Your task to perform on an android device: toggle pop-ups in chrome Image 0: 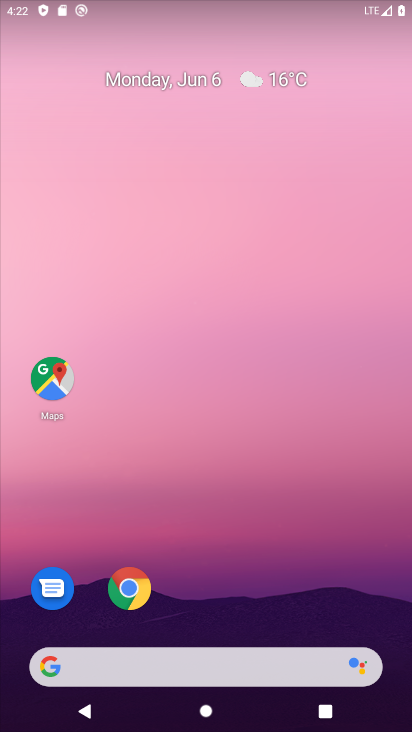
Step 0: drag from (278, 647) to (249, 99)
Your task to perform on an android device: toggle pop-ups in chrome Image 1: 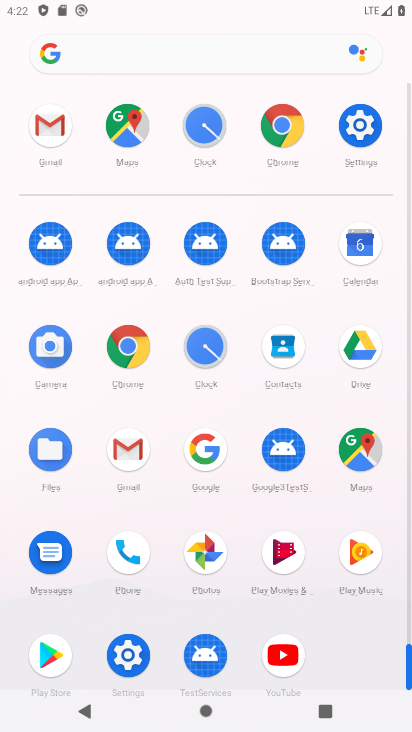
Step 1: click (129, 344)
Your task to perform on an android device: toggle pop-ups in chrome Image 2: 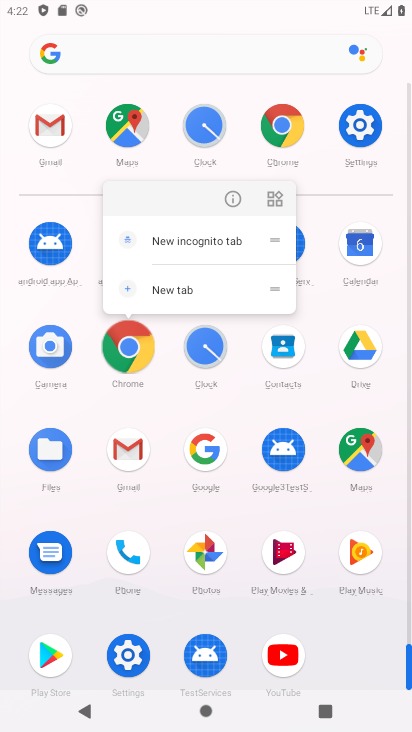
Step 2: click (129, 344)
Your task to perform on an android device: toggle pop-ups in chrome Image 3: 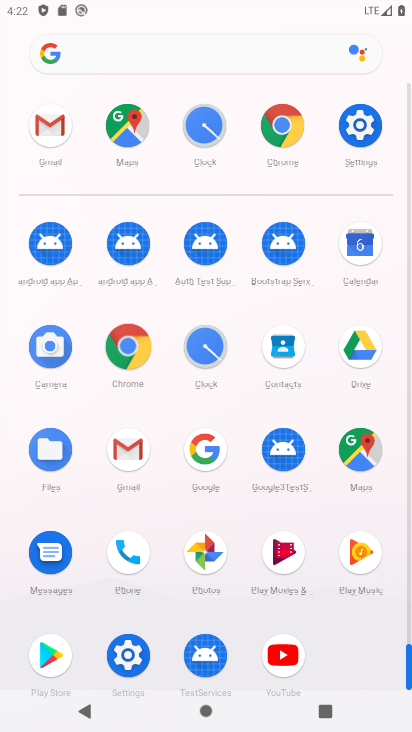
Step 3: click (131, 345)
Your task to perform on an android device: toggle pop-ups in chrome Image 4: 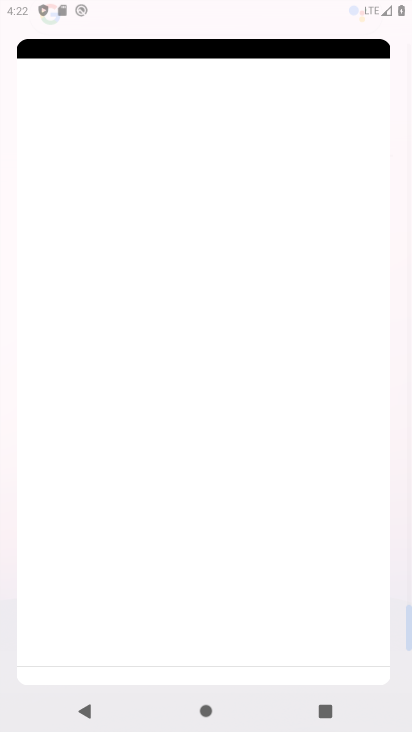
Step 4: click (133, 347)
Your task to perform on an android device: toggle pop-ups in chrome Image 5: 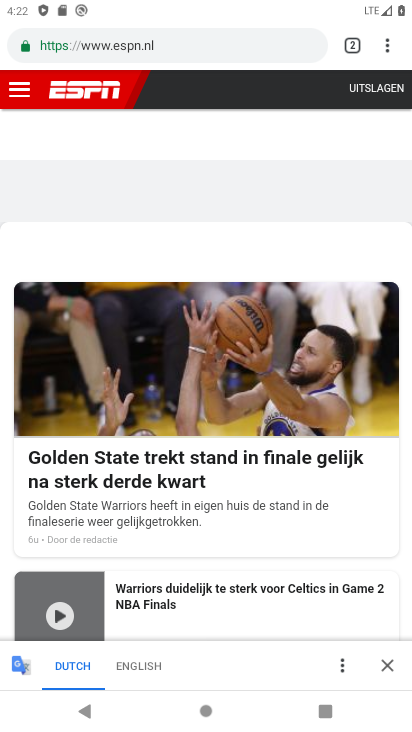
Step 5: click (380, 52)
Your task to perform on an android device: toggle pop-ups in chrome Image 6: 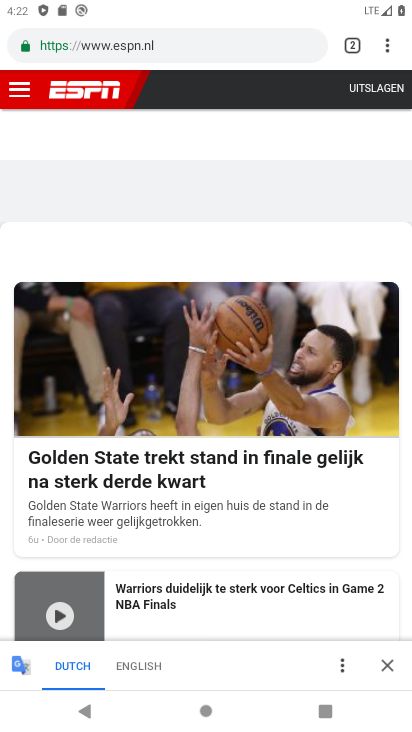
Step 6: drag from (389, 46) to (248, 607)
Your task to perform on an android device: toggle pop-ups in chrome Image 7: 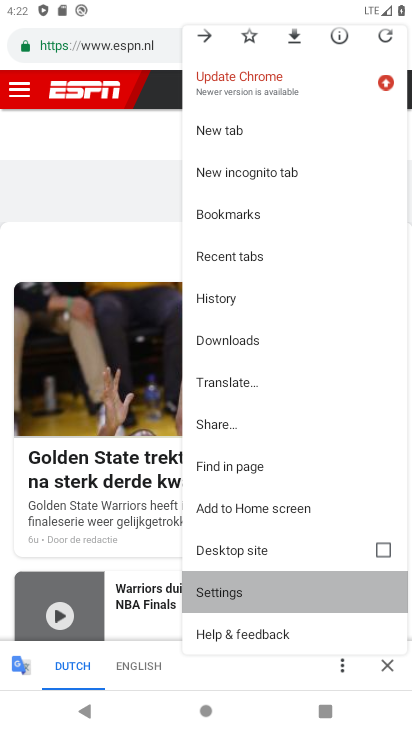
Step 7: click (250, 604)
Your task to perform on an android device: toggle pop-ups in chrome Image 8: 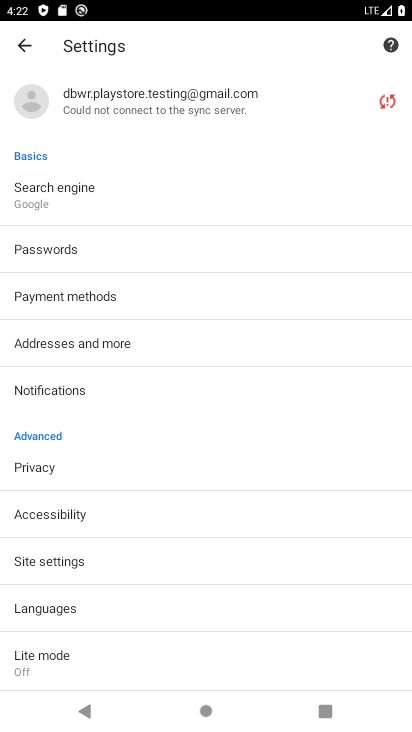
Step 8: drag from (65, 479) to (66, 173)
Your task to perform on an android device: toggle pop-ups in chrome Image 9: 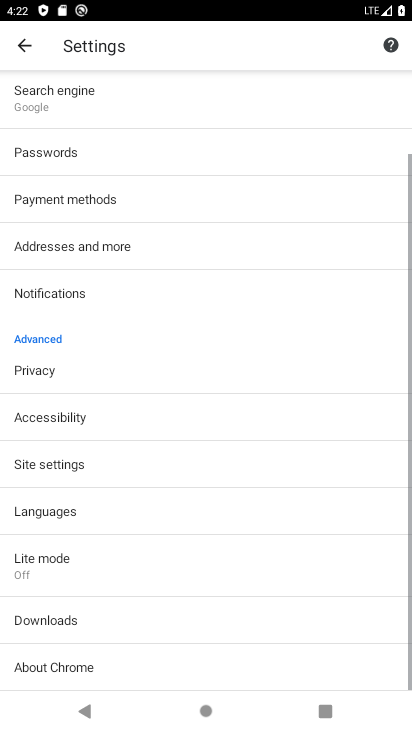
Step 9: drag from (139, 436) to (130, 261)
Your task to perform on an android device: toggle pop-ups in chrome Image 10: 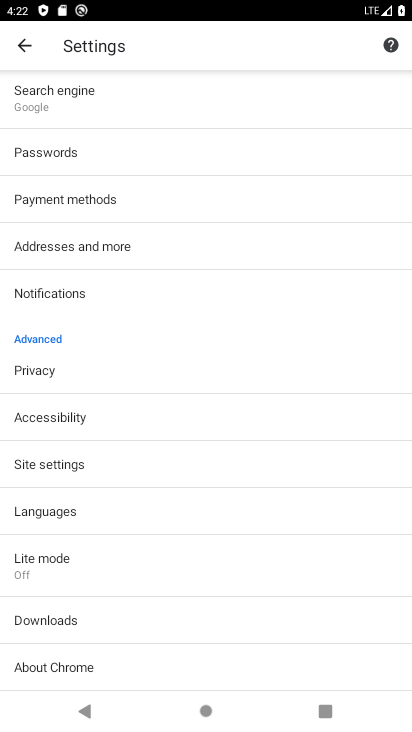
Step 10: click (32, 565)
Your task to perform on an android device: toggle pop-ups in chrome Image 11: 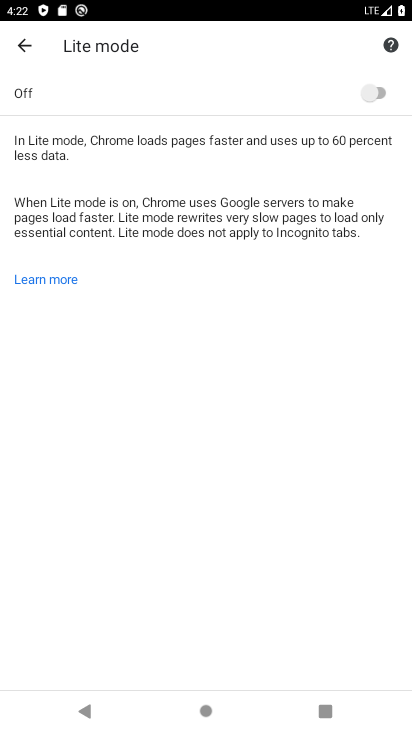
Step 11: click (369, 93)
Your task to perform on an android device: toggle pop-ups in chrome Image 12: 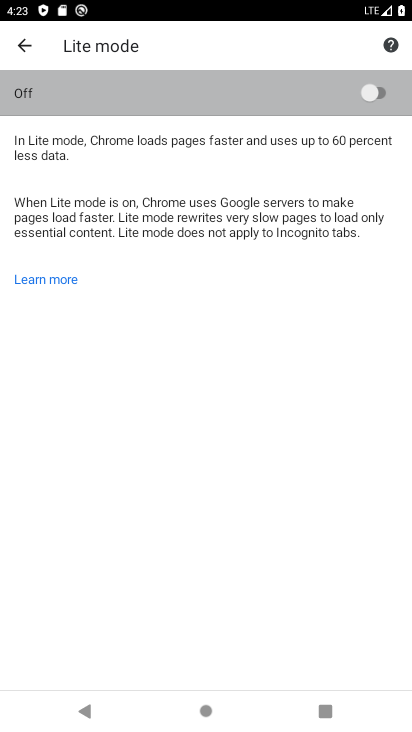
Step 12: click (369, 93)
Your task to perform on an android device: toggle pop-ups in chrome Image 13: 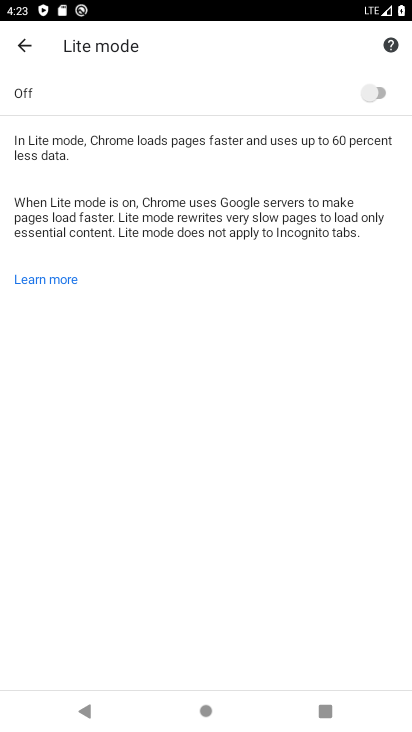
Step 13: click (29, 46)
Your task to perform on an android device: toggle pop-ups in chrome Image 14: 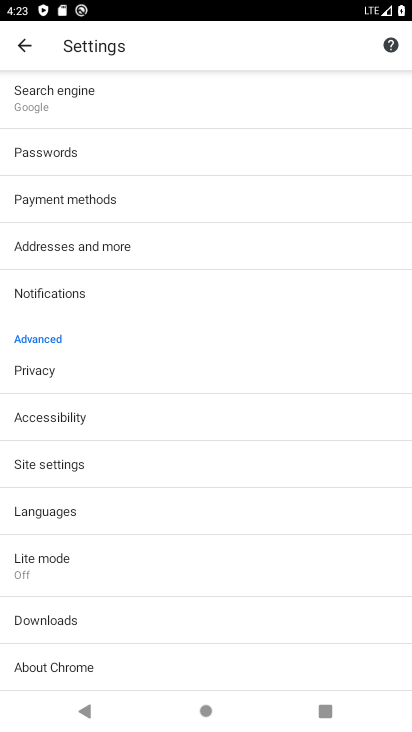
Step 14: click (45, 465)
Your task to perform on an android device: toggle pop-ups in chrome Image 15: 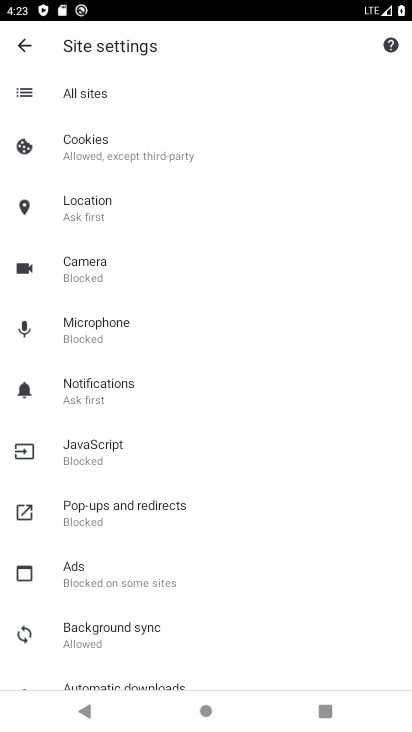
Step 15: click (113, 512)
Your task to perform on an android device: toggle pop-ups in chrome Image 16: 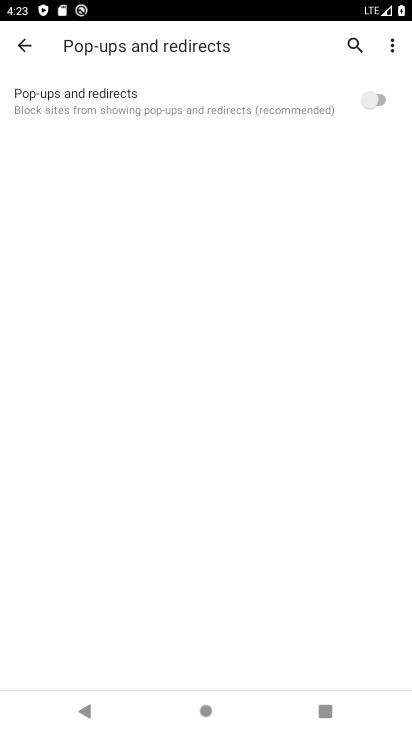
Step 16: click (372, 103)
Your task to perform on an android device: toggle pop-ups in chrome Image 17: 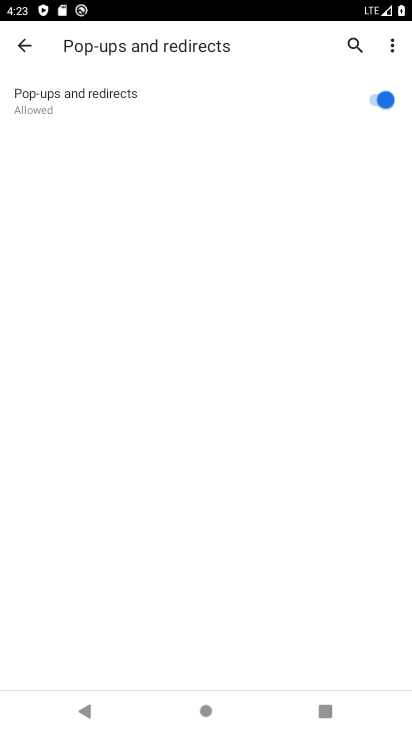
Step 17: task complete